Your task to perform on an android device: open app "Yahoo Mail" (install if not already installed) Image 0: 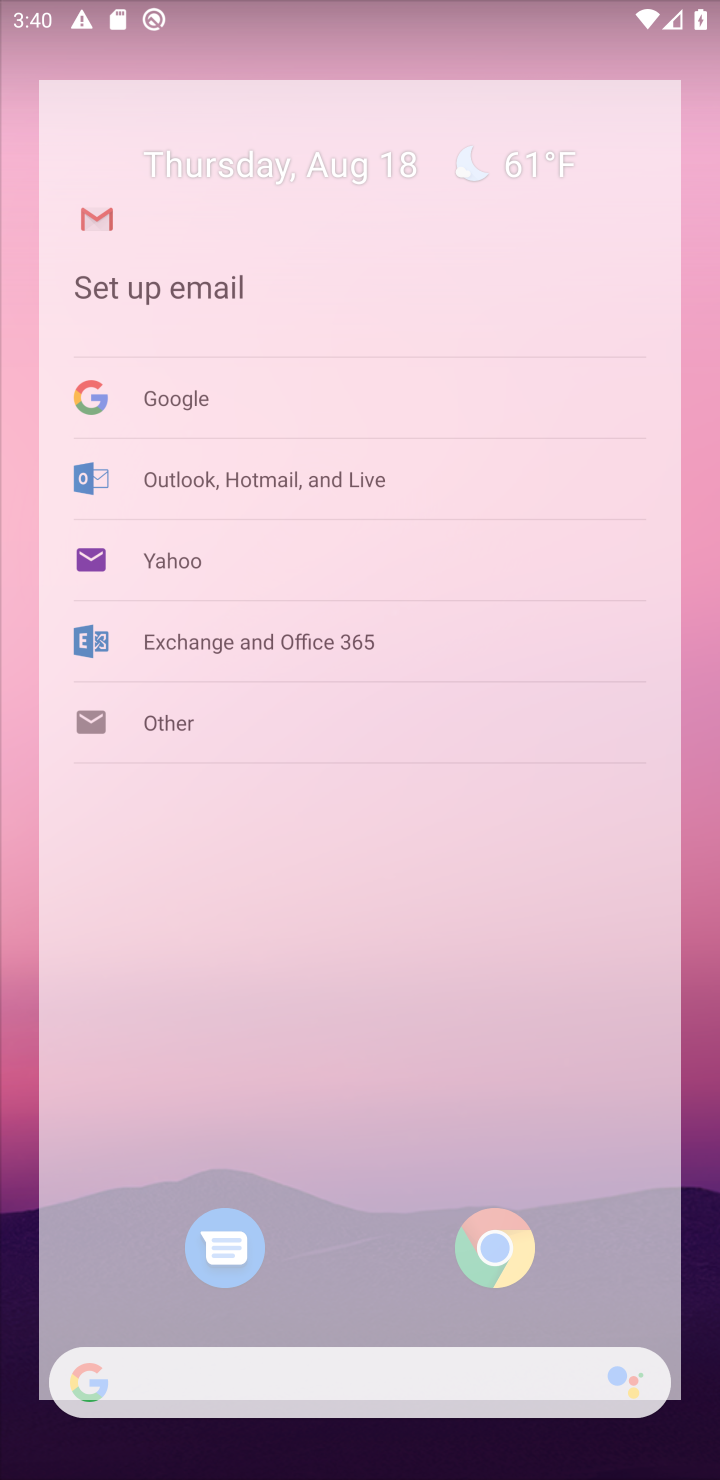
Step 0: click (566, 82)
Your task to perform on an android device: open app "Yahoo Mail" (install if not already installed) Image 1: 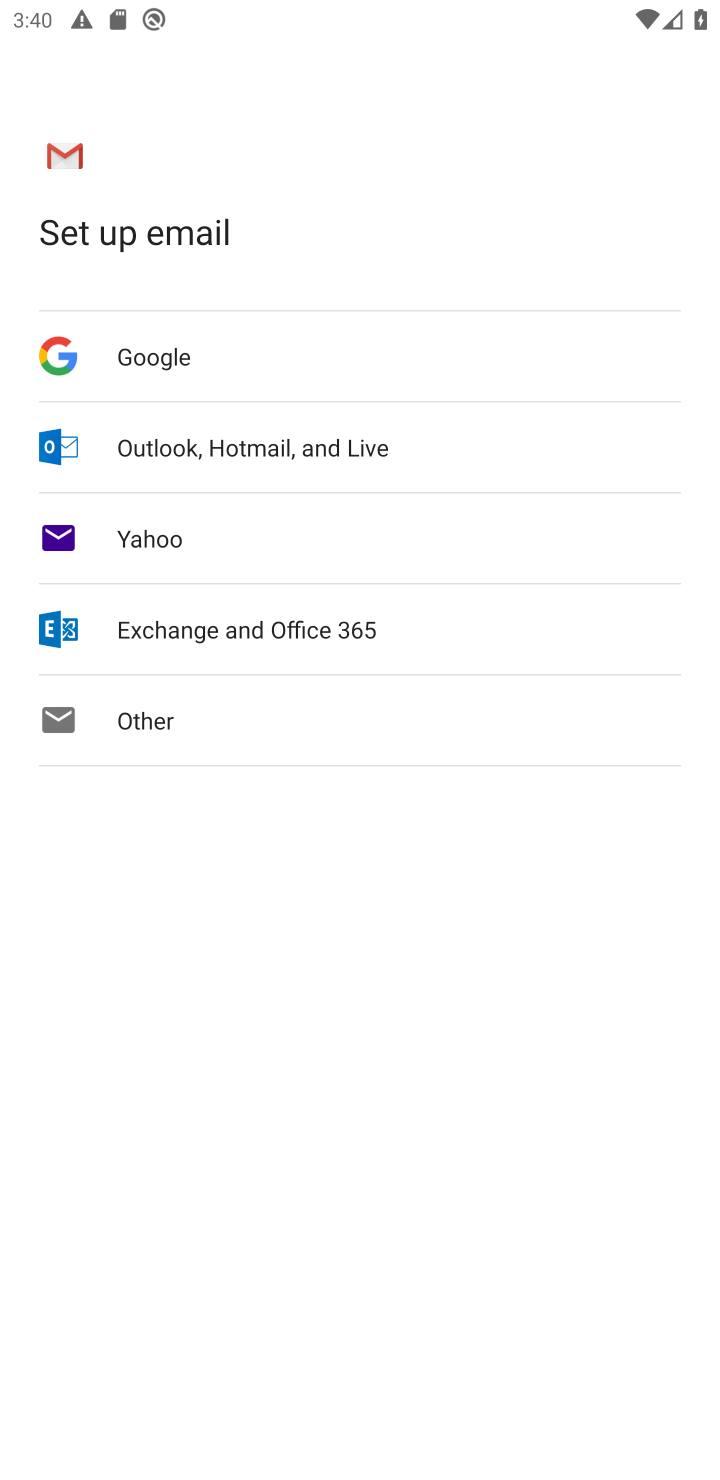
Step 1: press home button
Your task to perform on an android device: open app "Yahoo Mail" (install if not already installed) Image 2: 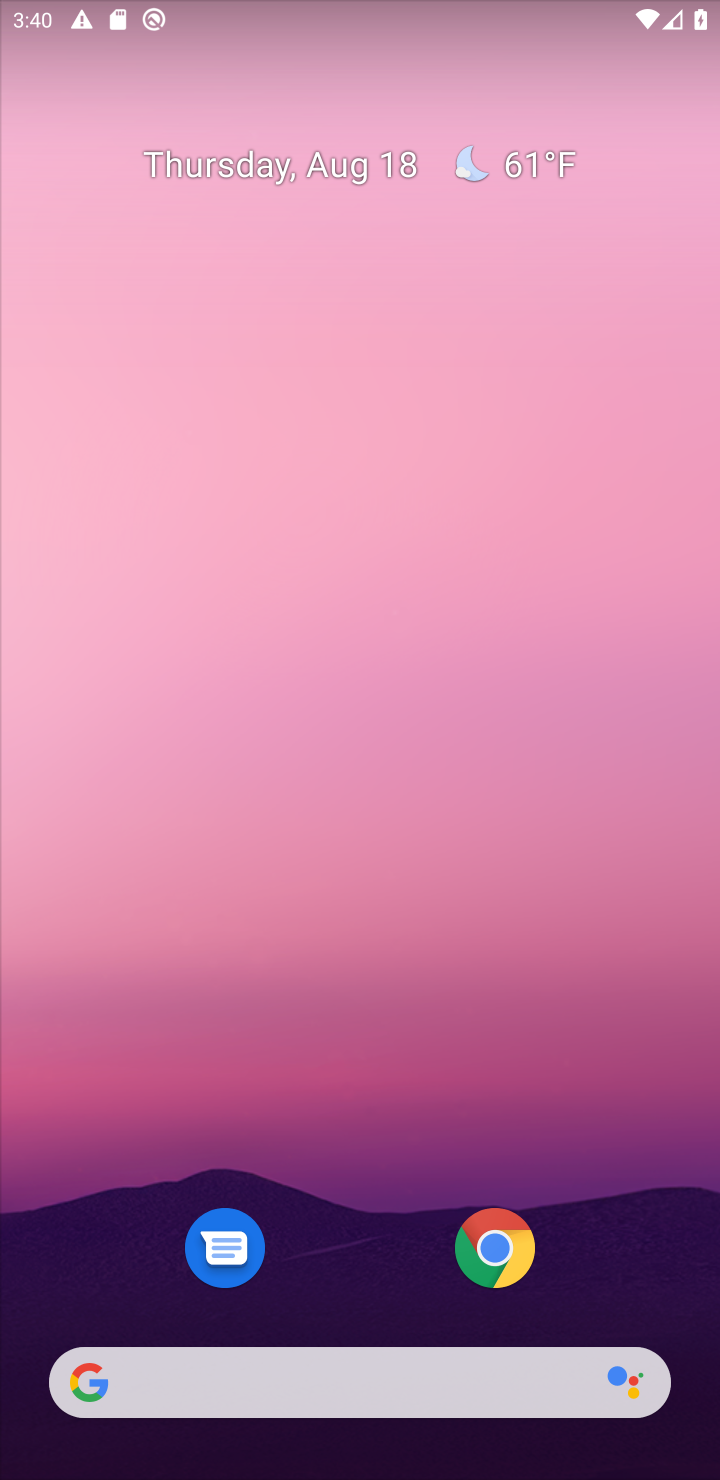
Step 2: drag from (343, 1033) to (343, 67)
Your task to perform on an android device: open app "Yahoo Mail" (install if not already installed) Image 3: 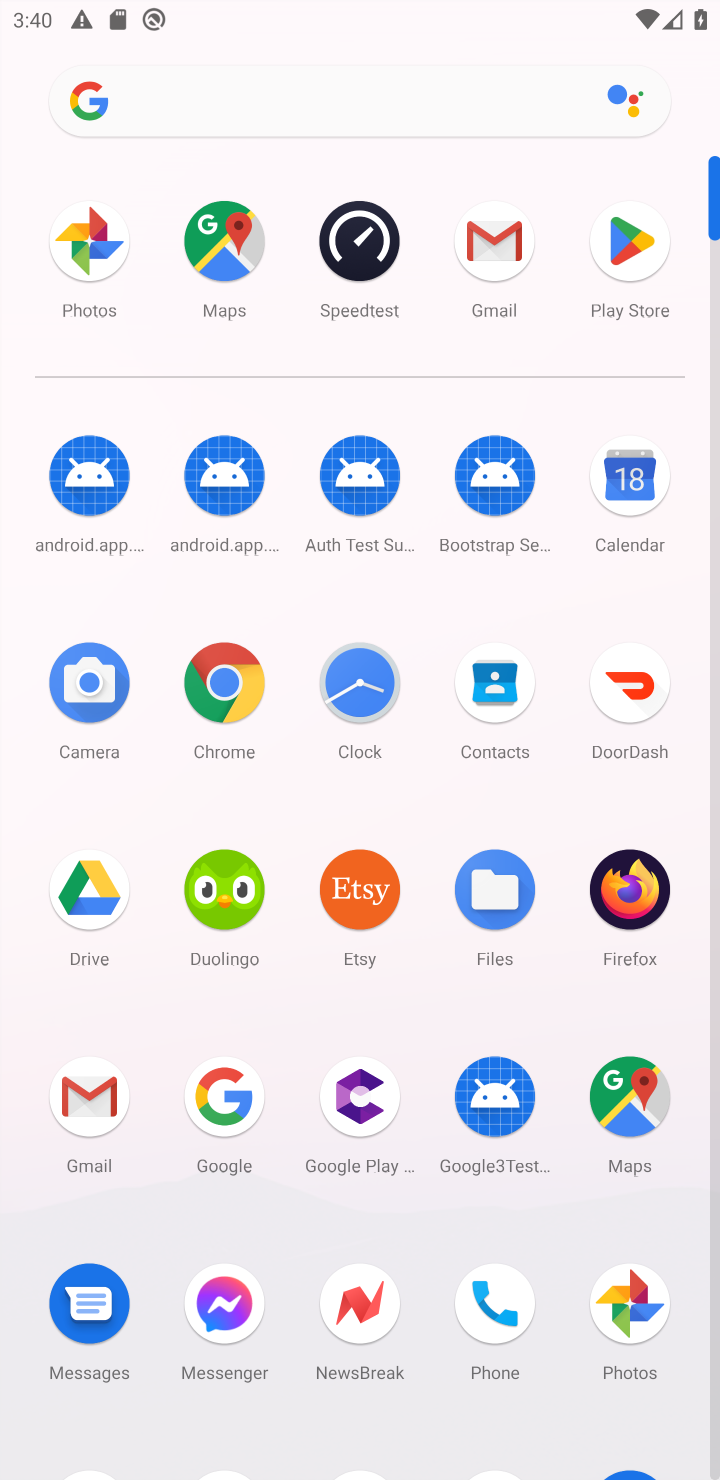
Step 3: click (634, 237)
Your task to perform on an android device: open app "Yahoo Mail" (install if not already installed) Image 4: 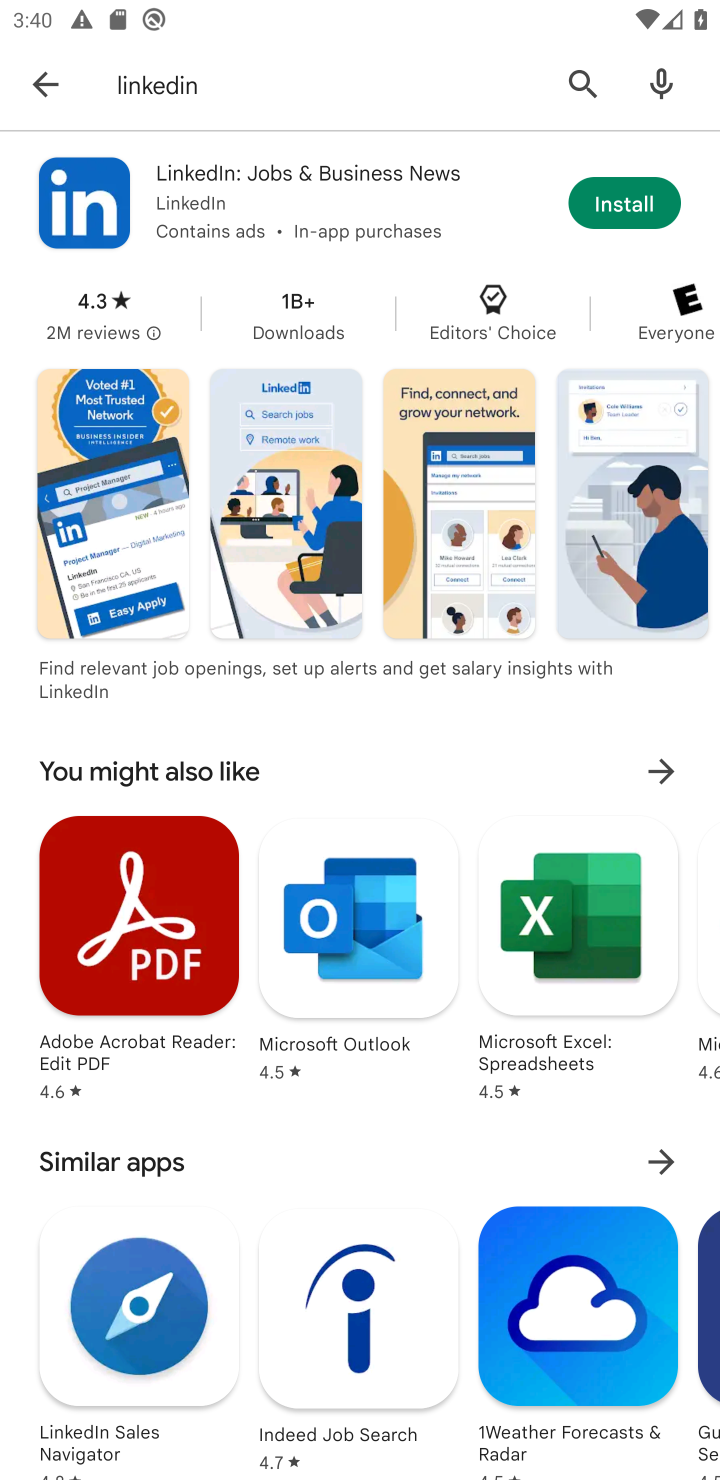
Step 4: click (570, 77)
Your task to perform on an android device: open app "Yahoo Mail" (install if not already installed) Image 5: 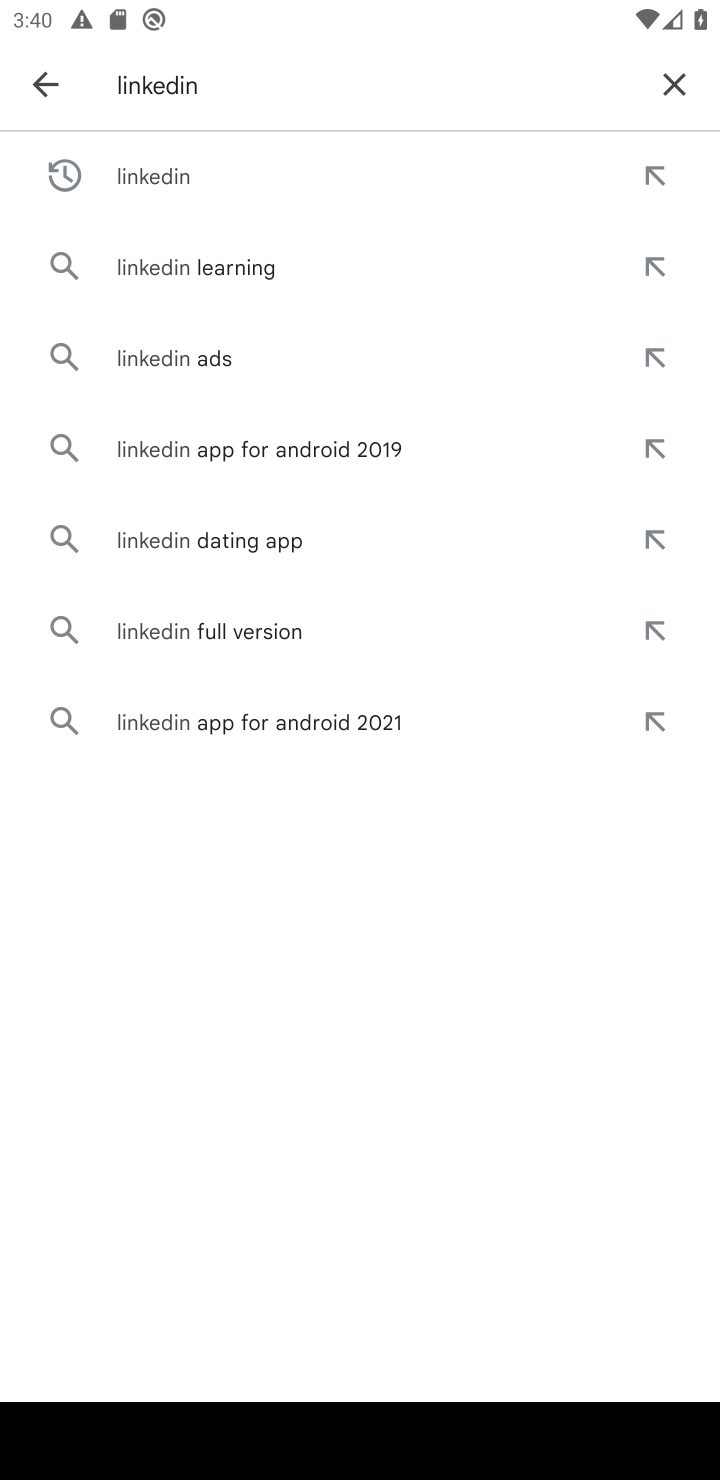
Step 5: click (677, 83)
Your task to perform on an android device: open app "Yahoo Mail" (install if not already installed) Image 6: 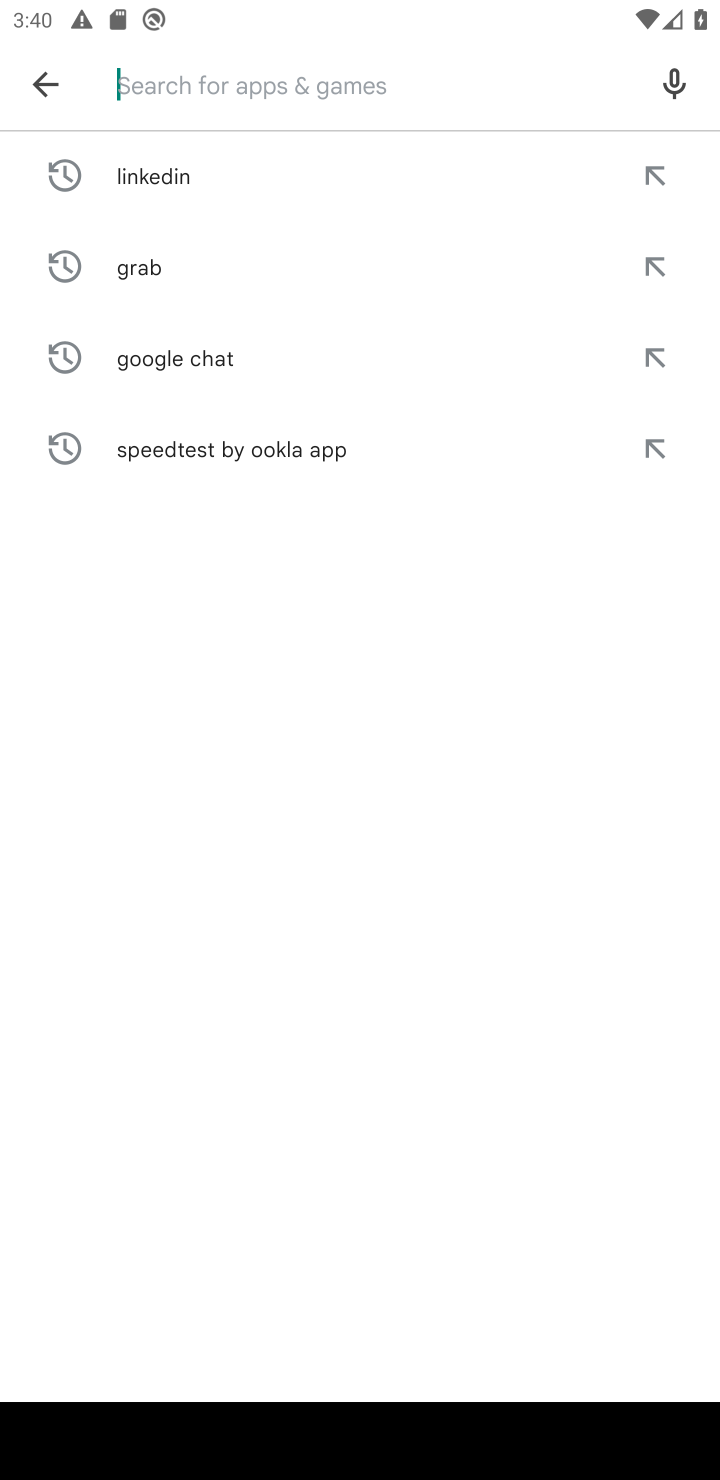
Step 6: type "Yahoo Mail"
Your task to perform on an android device: open app "Yahoo Mail" (install if not already installed) Image 7: 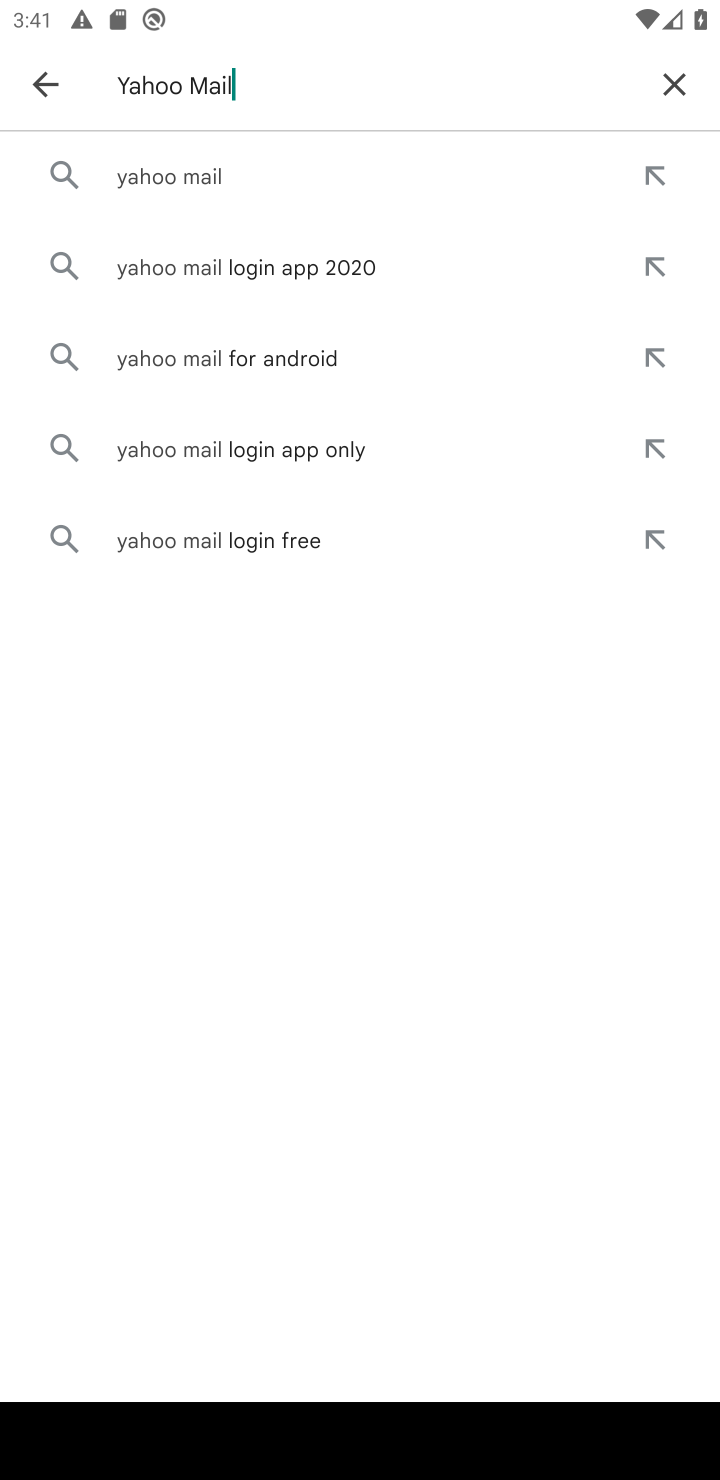
Step 7: click (153, 175)
Your task to perform on an android device: open app "Yahoo Mail" (install if not already installed) Image 8: 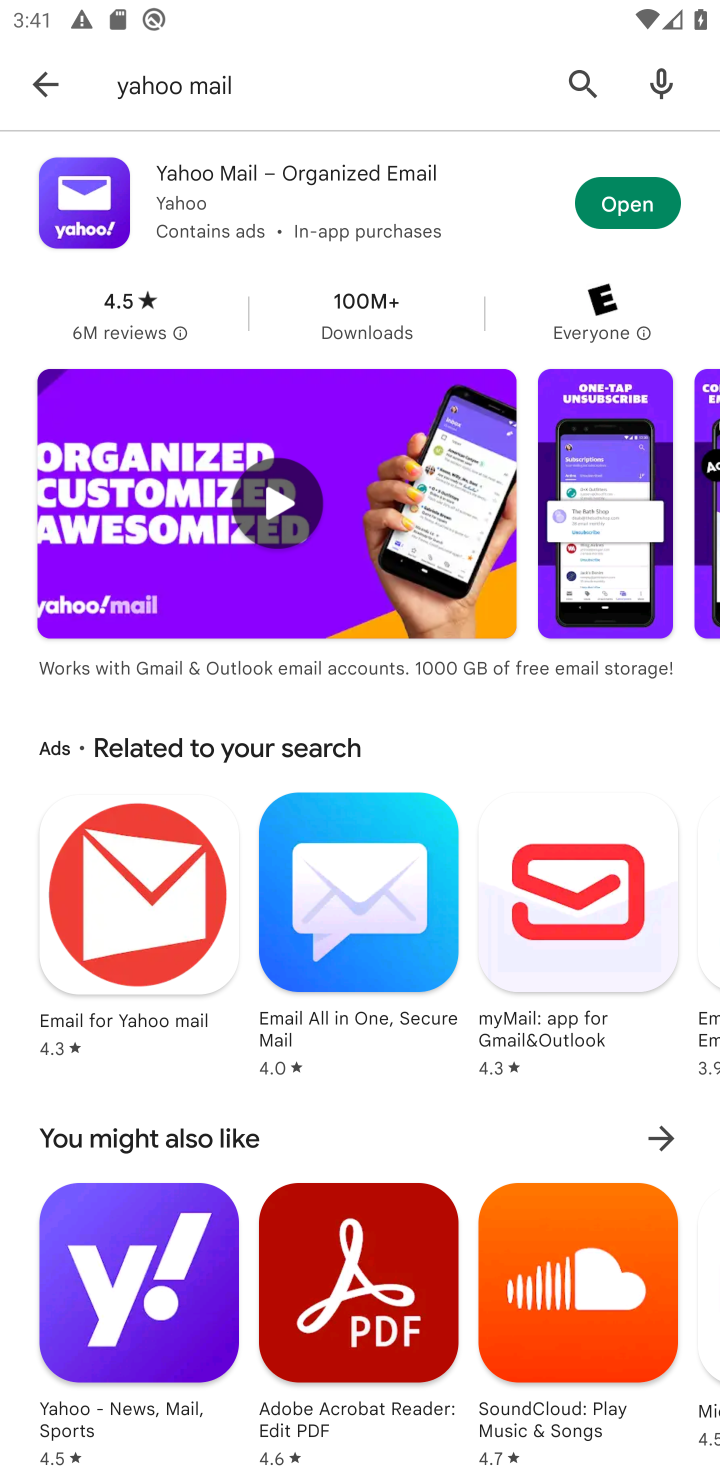
Step 8: click (638, 192)
Your task to perform on an android device: open app "Yahoo Mail" (install if not already installed) Image 9: 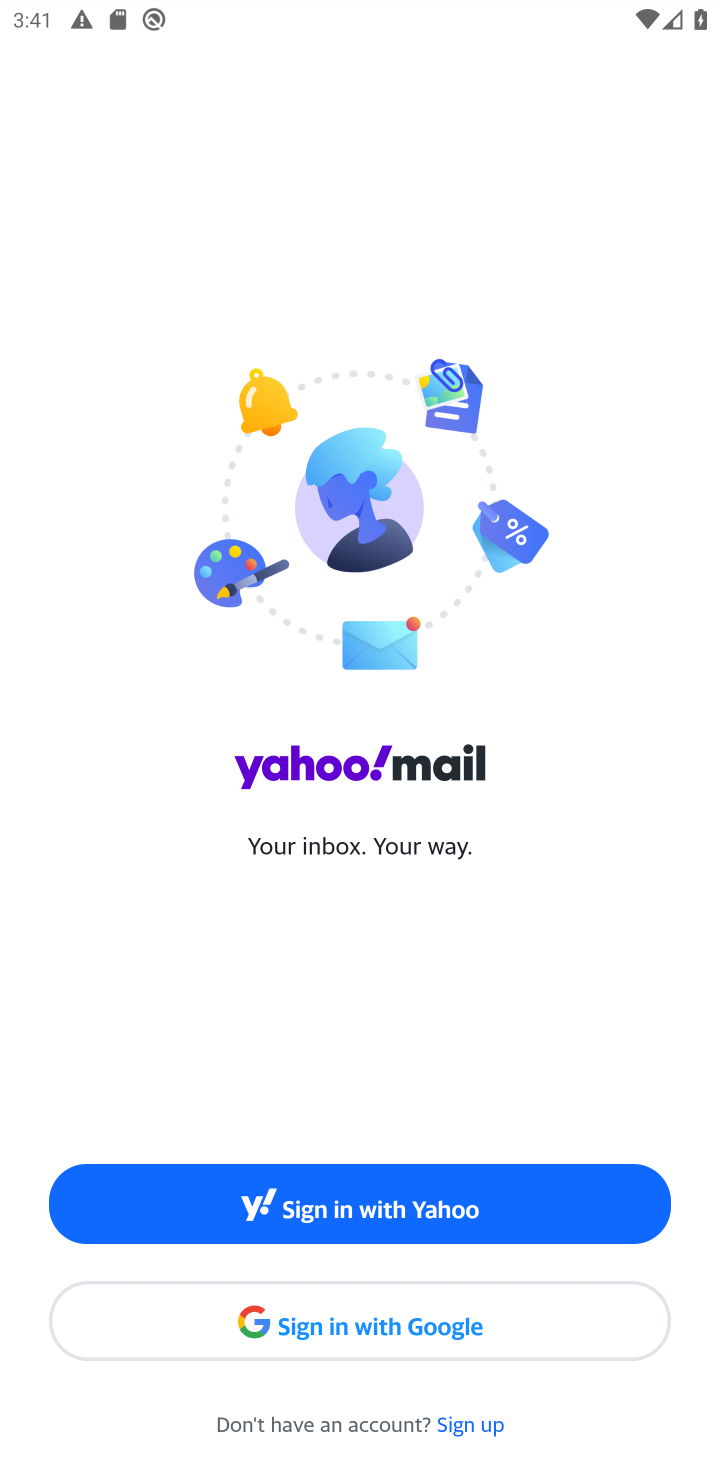
Step 9: task complete